Your task to perform on an android device: find which apps use the phone's location Image 0: 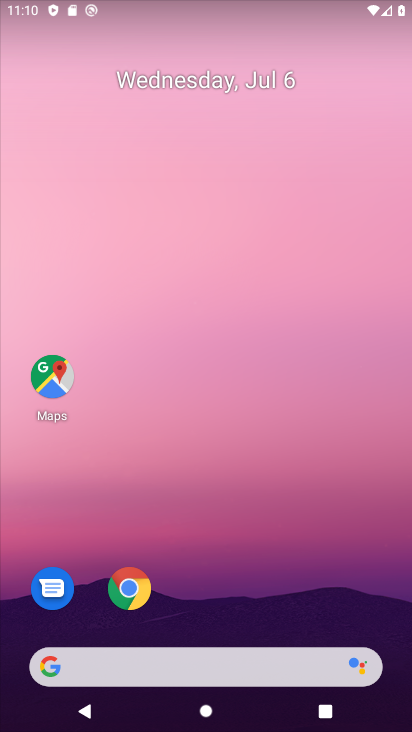
Step 0: drag from (295, 551) to (268, 110)
Your task to perform on an android device: find which apps use the phone's location Image 1: 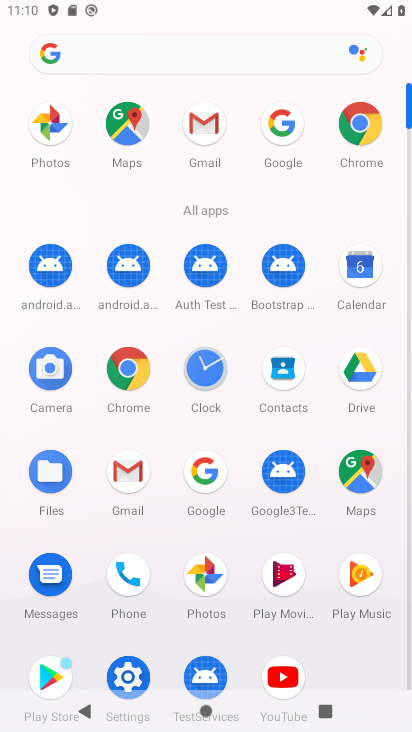
Step 1: click (113, 663)
Your task to perform on an android device: find which apps use the phone's location Image 2: 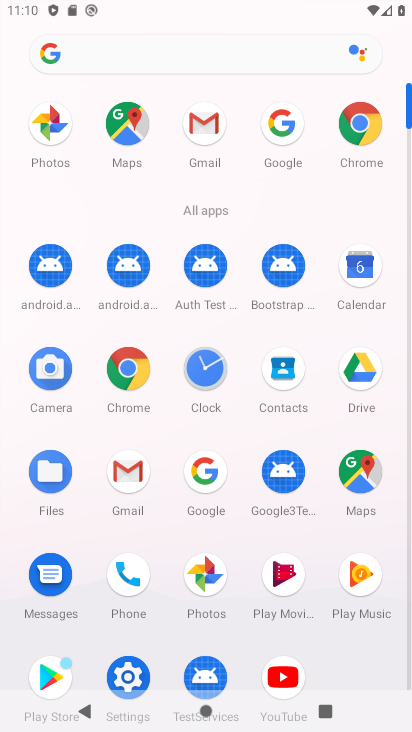
Step 2: click (136, 672)
Your task to perform on an android device: find which apps use the phone's location Image 3: 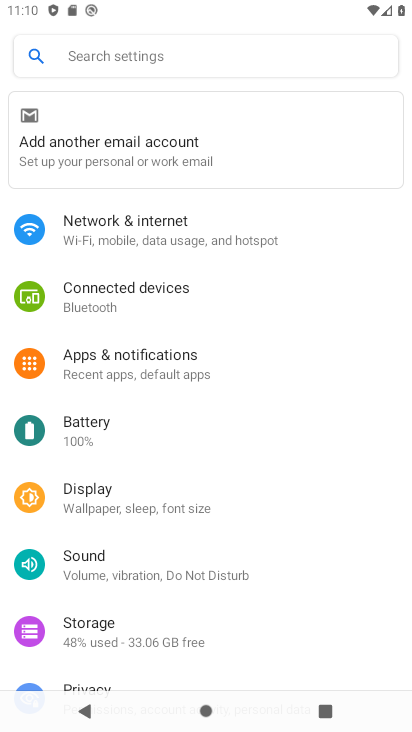
Step 3: drag from (150, 598) to (175, 302)
Your task to perform on an android device: find which apps use the phone's location Image 4: 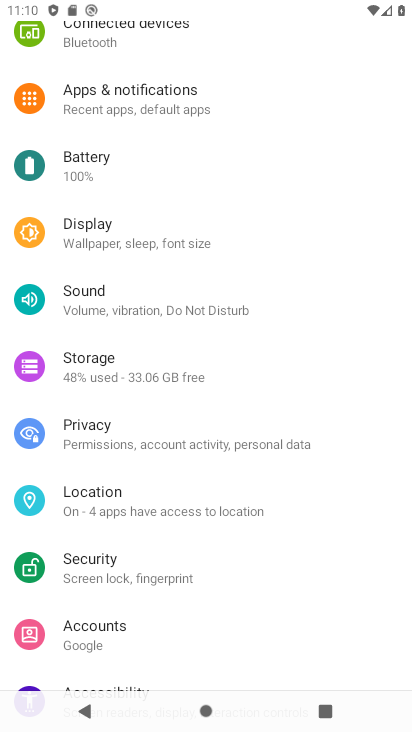
Step 4: click (90, 511)
Your task to perform on an android device: find which apps use the phone's location Image 5: 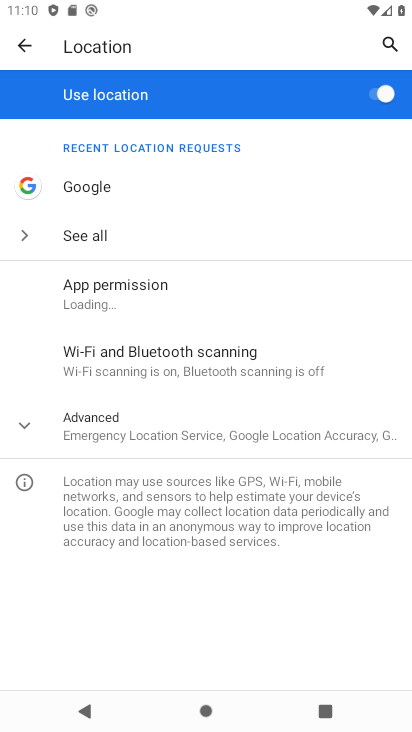
Step 5: click (153, 285)
Your task to perform on an android device: find which apps use the phone's location Image 6: 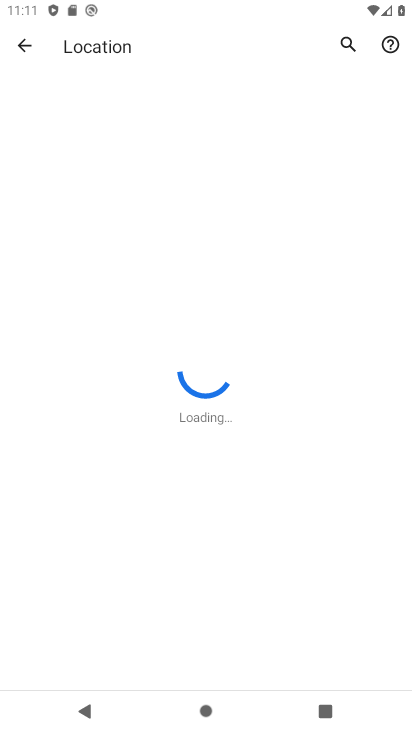
Step 6: click (125, 295)
Your task to perform on an android device: find which apps use the phone's location Image 7: 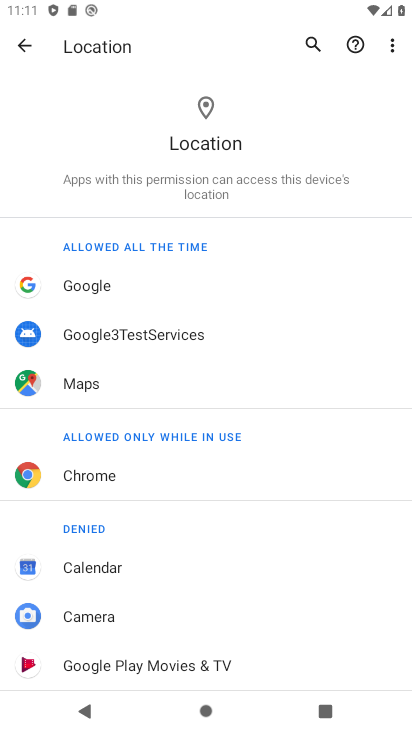
Step 7: task complete